Your task to perform on an android device: Go to Wikipedia Image 0: 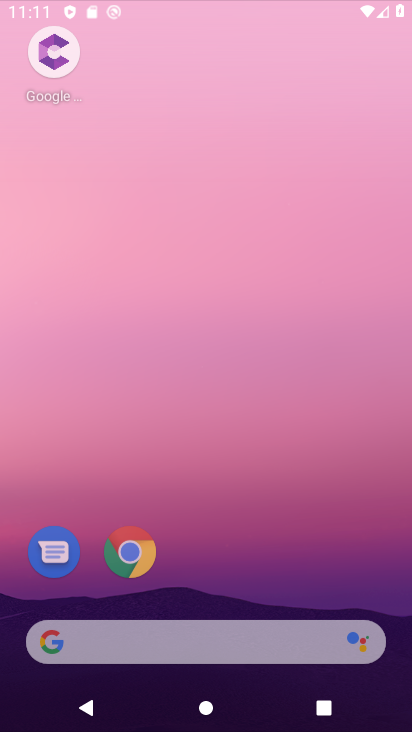
Step 0: press home button
Your task to perform on an android device: Go to Wikipedia Image 1: 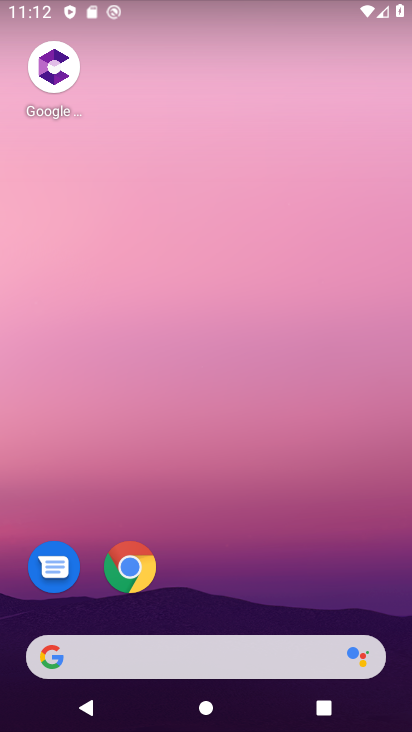
Step 1: drag from (381, 582) to (362, 150)
Your task to perform on an android device: Go to Wikipedia Image 2: 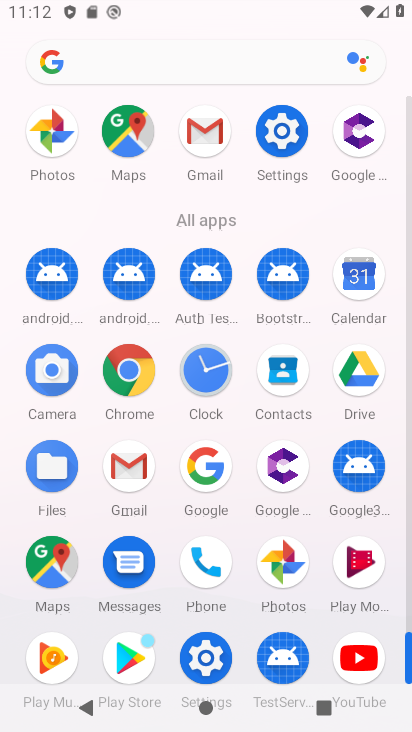
Step 2: click (131, 373)
Your task to perform on an android device: Go to Wikipedia Image 3: 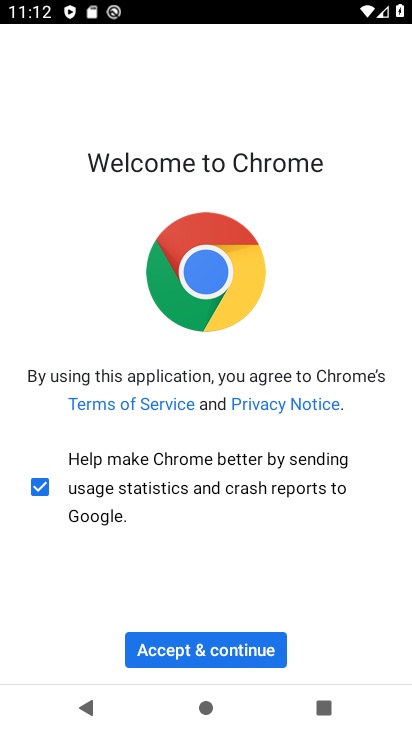
Step 3: click (259, 642)
Your task to perform on an android device: Go to Wikipedia Image 4: 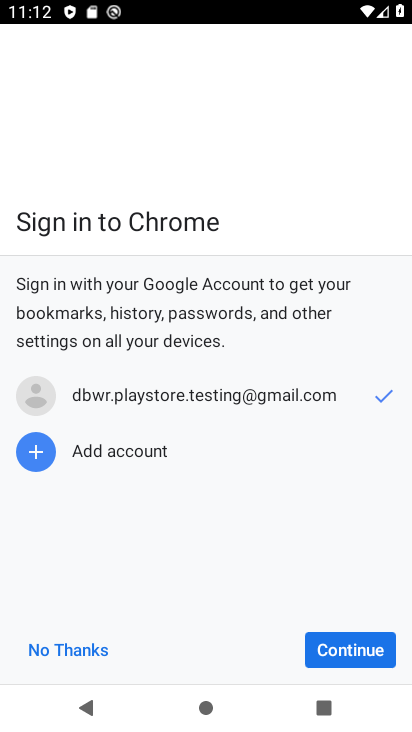
Step 4: click (351, 640)
Your task to perform on an android device: Go to Wikipedia Image 5: 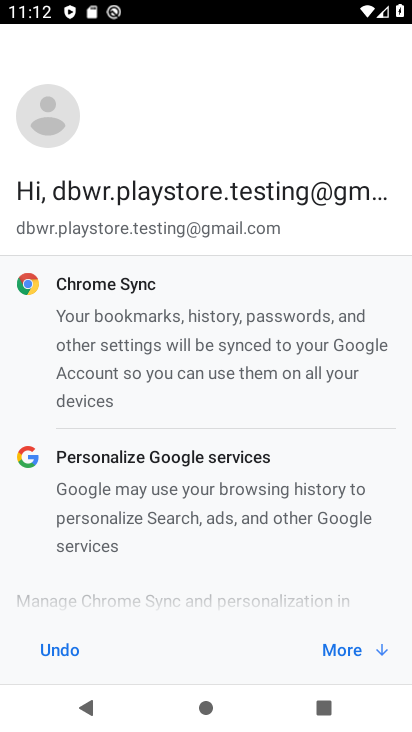
Step 5: click (345, 649)
Your task to perform on an android device: Go to Wikipedia Image 6: 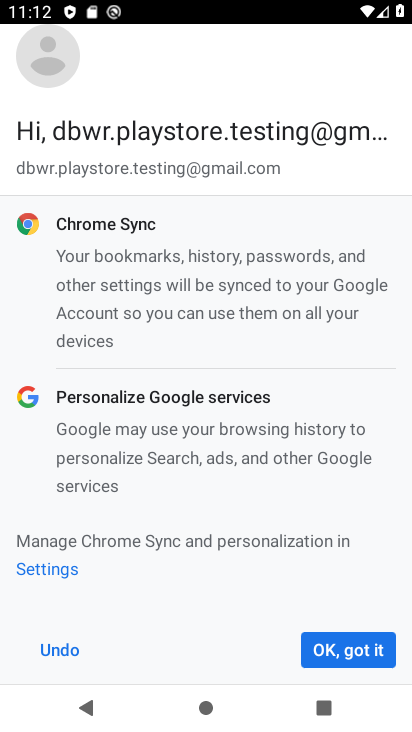
Step 6: click (345, 649)
Your task to perform on an android device: Go to Wikipedia Image 7: 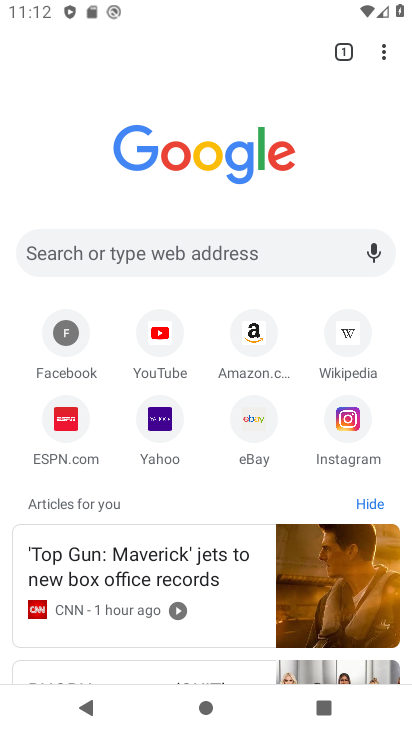
Step 7: click (355, 347)
Your task to perform on an android device: Go to Wikipedia Image 8: 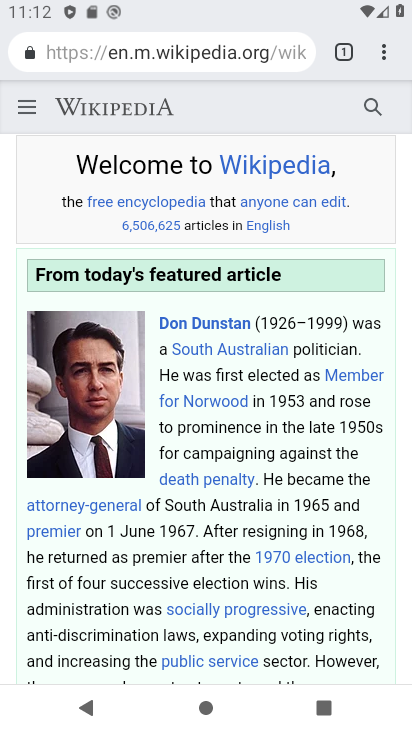
Step 8: task complete